Your task to perform on an android device: turn off improve location accuracy Image 0: 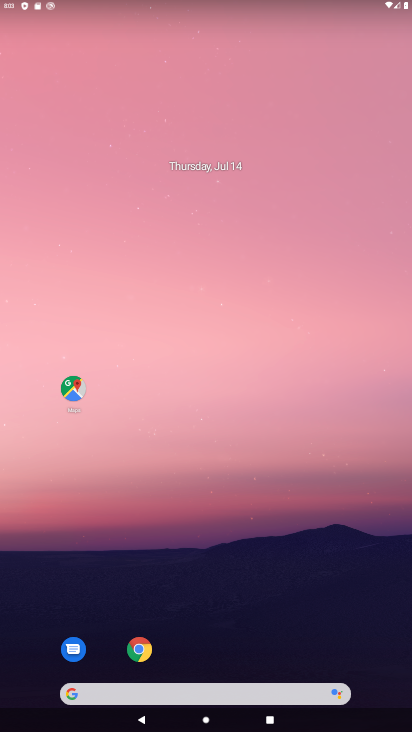
Step 0: drag from (223, 683) to (212, 223)
Your task to perform on an android device: turn off improve location accuracy Image 1: 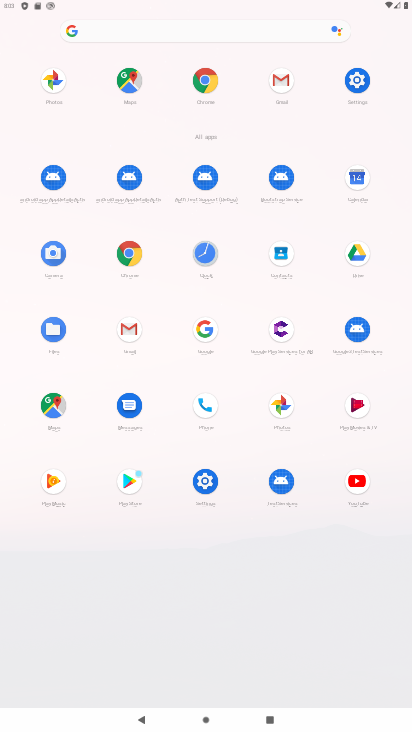
Step 1: click (356, 79)
Your task to perform on an android device: turn off improve location accuracy Image 2: 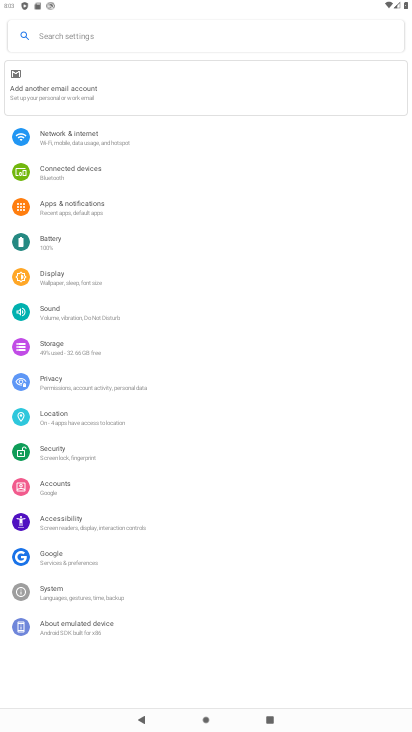
Step 2: click (39, 418)
Your task to perform on an android device: turn off improve location accuracy Image 3: 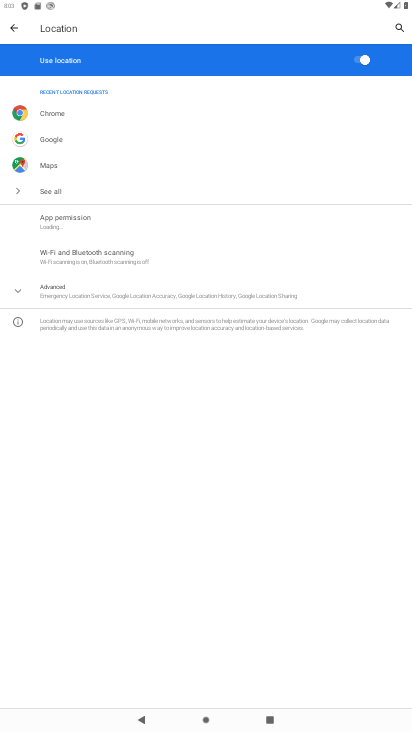
Step 3: click (52, 224)
Your task to perform on an android device: turn off improve location accuracy Image 4: 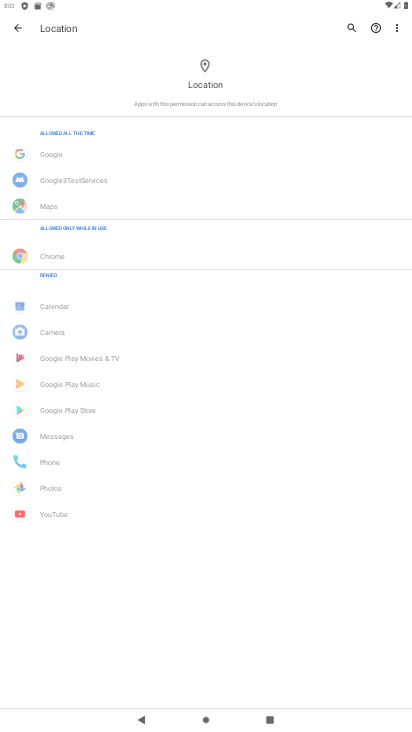
Step 4: click (19, 27)
Your task to perform on an android device: turn off improve location accuracy Image 5: 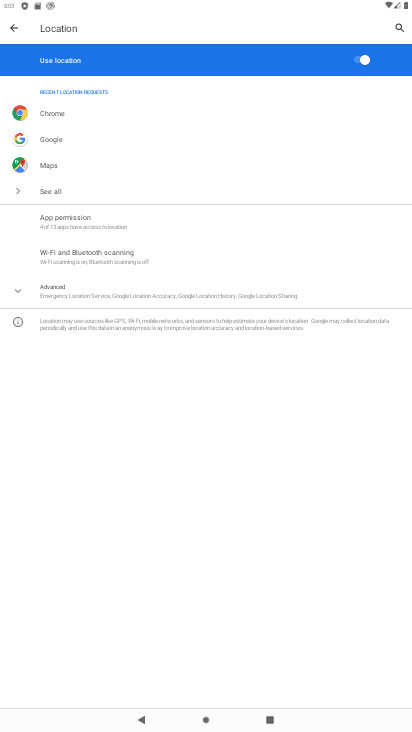
Step 5: click (54, 294)
Your task to perform on an android device: turn off improve location accuracy Image 6: 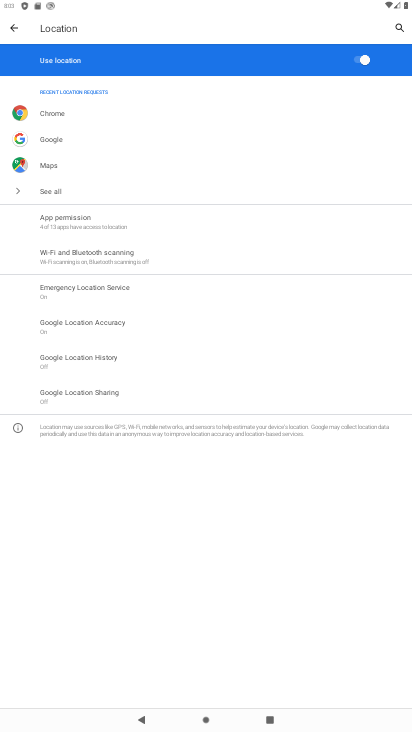
Step 6: click (57, 324)
Your task to perform on an android device: turn off improve location accuracy Image 7: 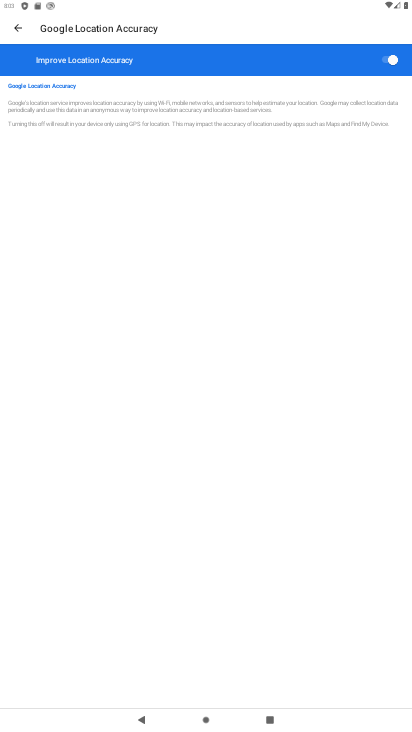
Step 7: click (383, 62)
Your task to perform on an android device: turn off improve location accuracy Image 8: 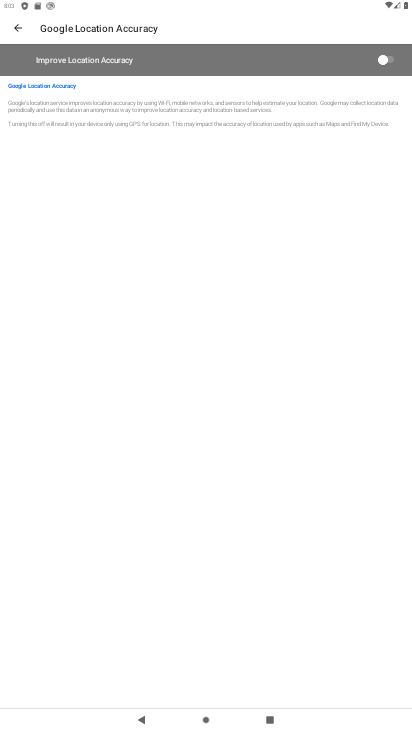
Step 8: task complete